Your task to perform on an android device: move an email to a new category in the gmail app Image 0: 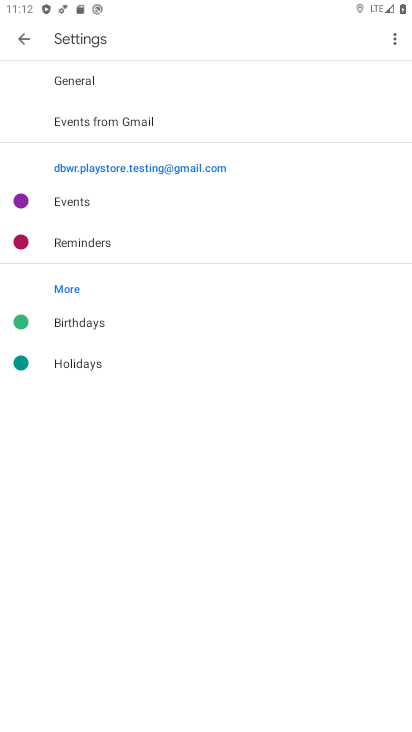
Step 0: press home button
Your task to perform on an android device: move an email to a new category in the gmail app Image 1: 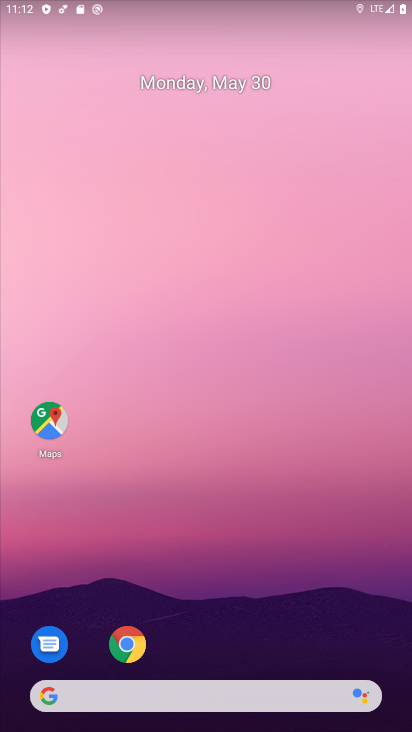
Step 1: drag from (169, 664) to (200, 292)
Your task to perform on an android device: move an email to a new category in the gmail app Image 2: 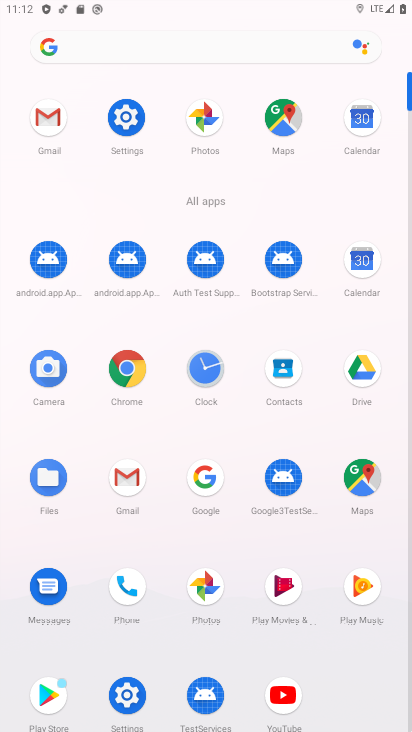
Step 2: click (145, 481)
Your task to perform on an android device: move an email to a new category in the gmail app Image 3: 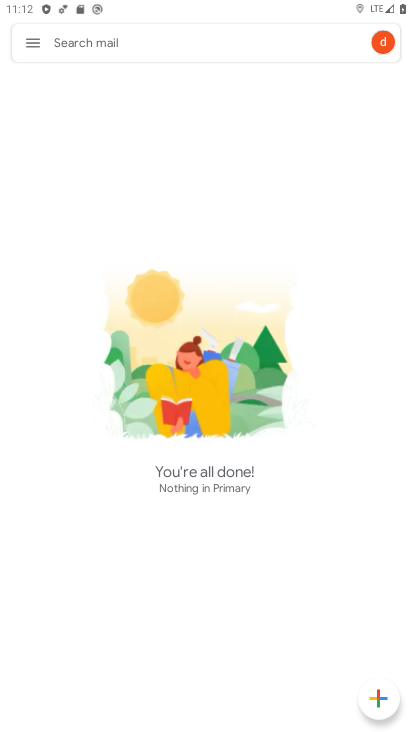
Step 3: task complete